Your task to perform on an android device: clear history in the chrome app Image 0: 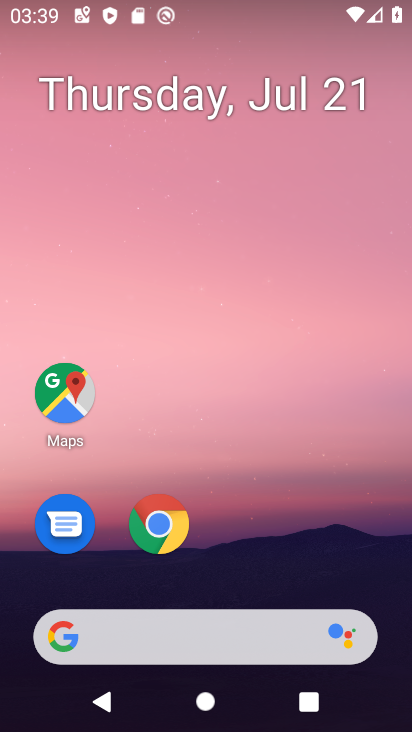
Step 0: click (167, 525)
Your task to perform on an android device: clear history in the chrome app Image 1: 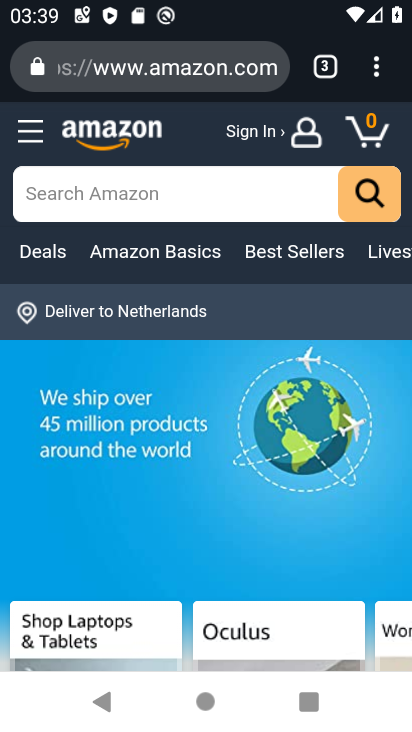
Step 1: click (377, 73)
Your task to perform on an android device: clear history in the chrome app Image 2: 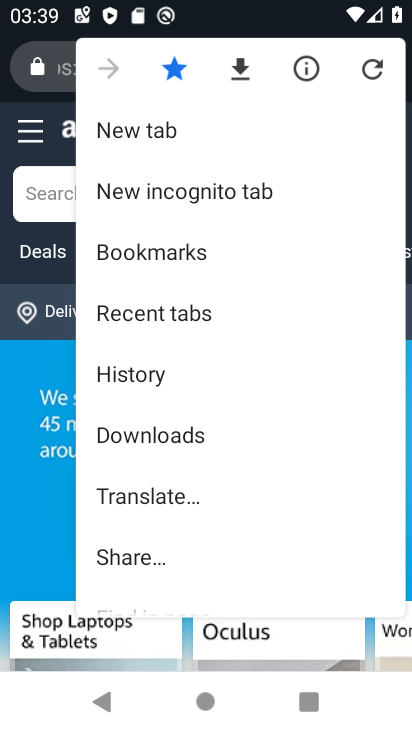
Step 2: click (142, 385)
Your task to perform on an android device: clear history in the chrome app Image 3: 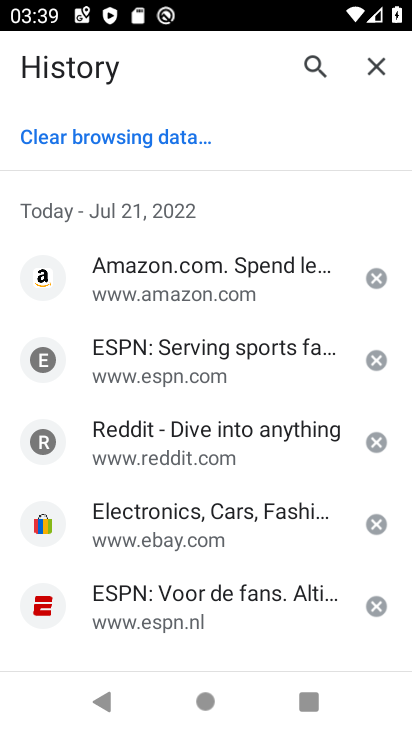
Step 3: click (146, 137)
Your task to perform on an android device: clear history in the chrome app Image 4: 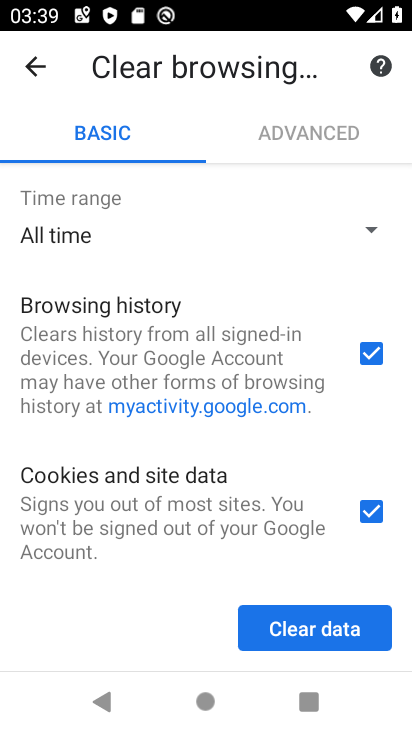
Step 4: click (369, 512)
Your task to perform on an android device: clear history in the chrome app Image 5: 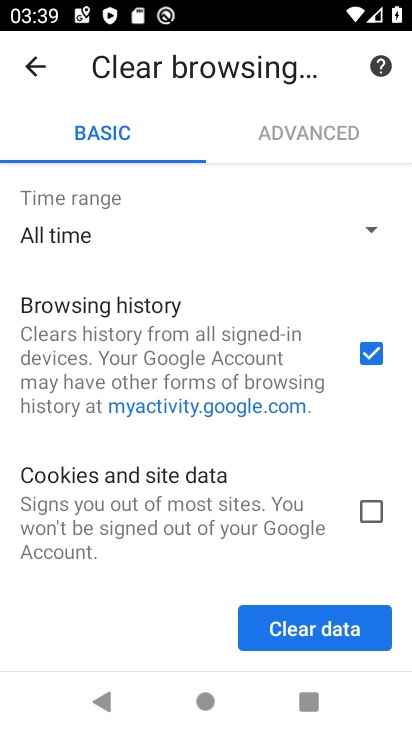
Step 5: drag from (192, 504) to (198, 244)
Your task to perform on an android device: clear history in the chrome app Image 6: 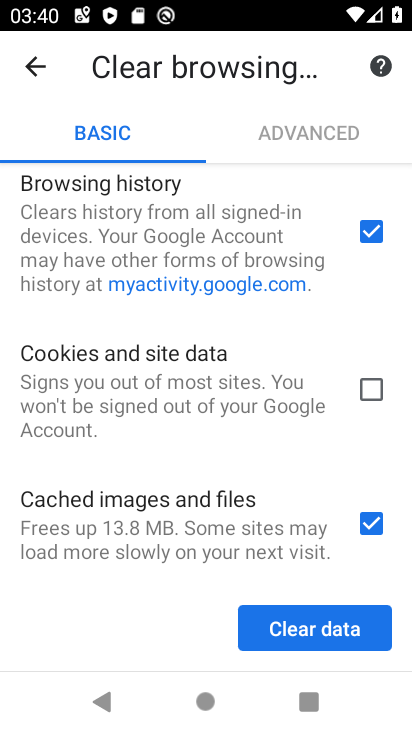
Step 6: click (372, 515)
Your task to perform on an android device: clear history in the chrome app Image 7: 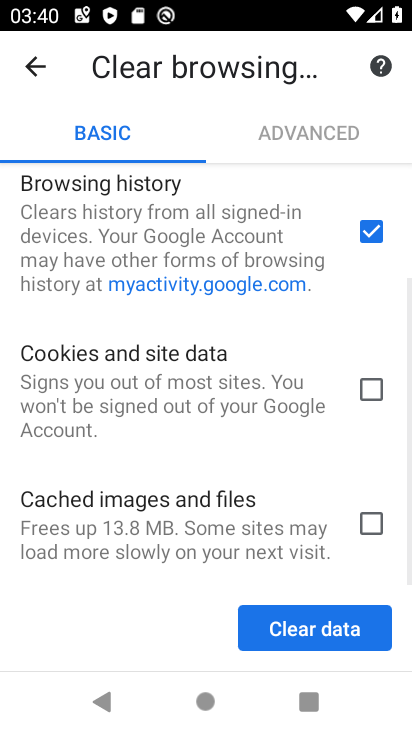
Step 7: click (324, 635)
Your task to perform on an android device: clear history in the chrome app Image 8: 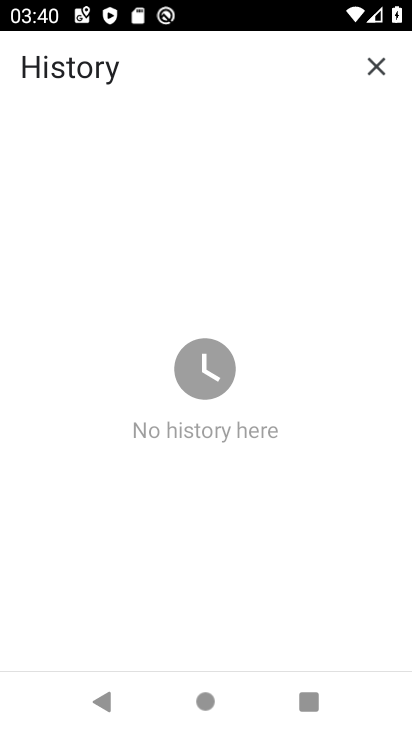
Step 8: task complete